Your task to perform on an android device: Go to eBay Image 0: 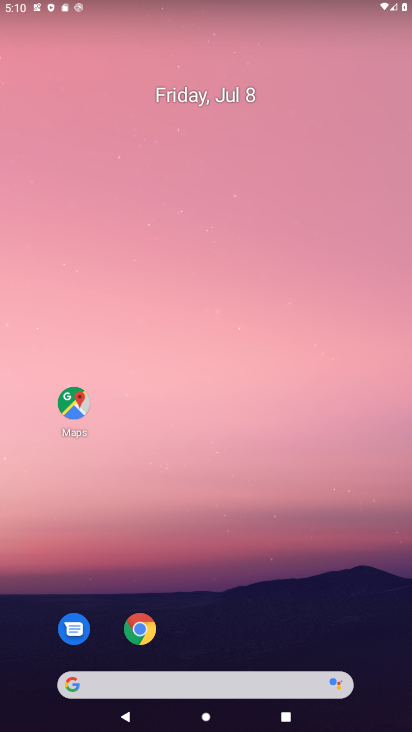
Step 0: press home button
Your task to perform on an android device: Go to eBay Image 1: 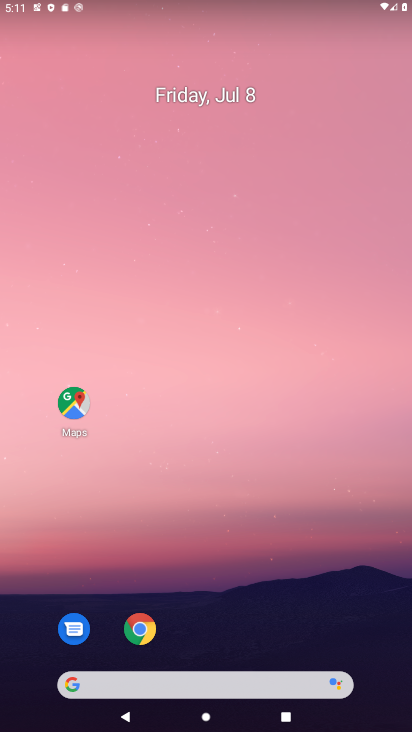
Step 1: click (71, 685)
Your task to perform on an android device: Go to eBay Image 2: 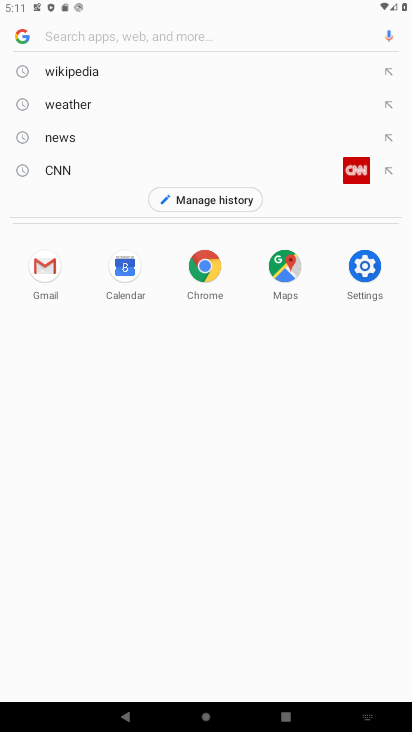
Step 2: type "eBay"
Your task to perform on an android device: Go to eBay Image 3: 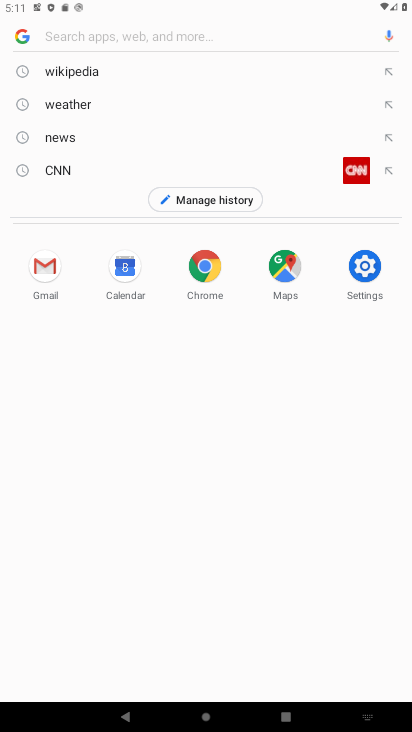
Step 3: click (100, 20)
Your task to perform on an android device: Go to eBay Image 4: 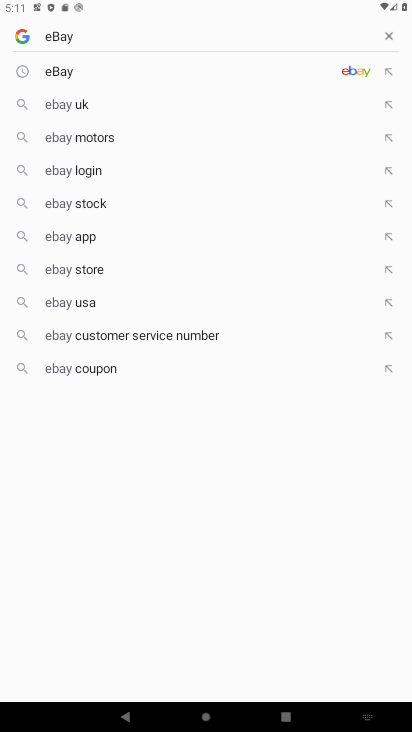
Step 4: click (63, 74)
Your task to perform on an android device: Go to eBay Image 5: 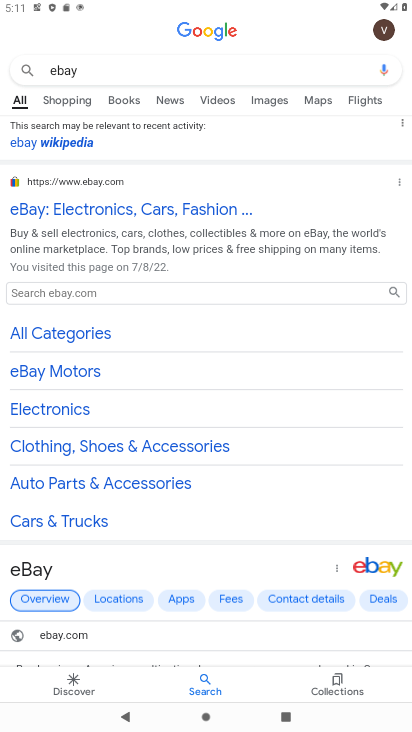
Step 5: click (96, 205)
Your task to perform on an android device: Go to eBay Image 6: 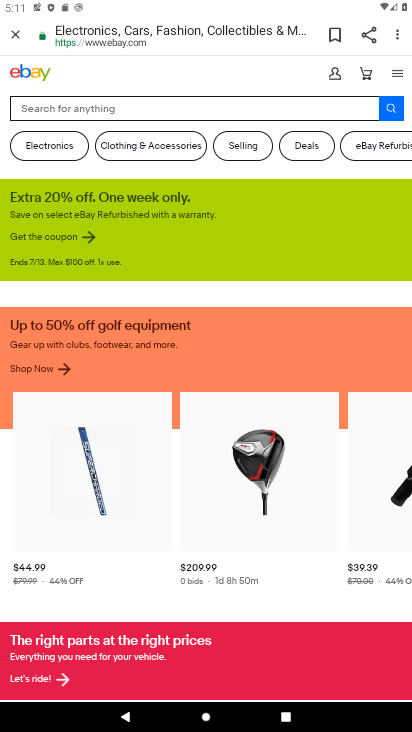
Step 6: task complete